Your task to perform on an android device: uninstall "PUBG MOBILE" Image 0: 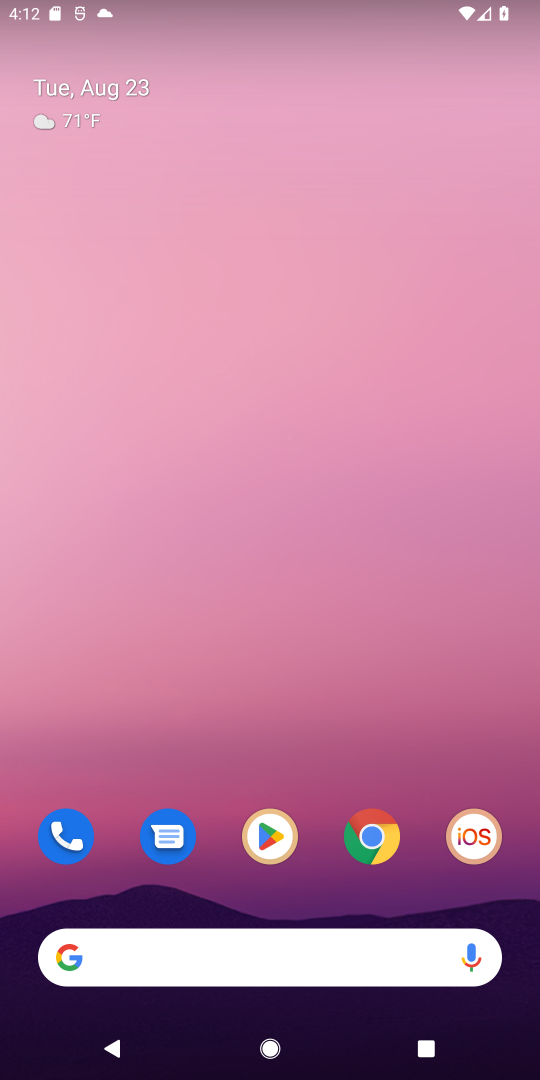
Step 0: click (274, 829)
Your task to perform on an android device: uninstall "PUBG MOBILE" Image 1: 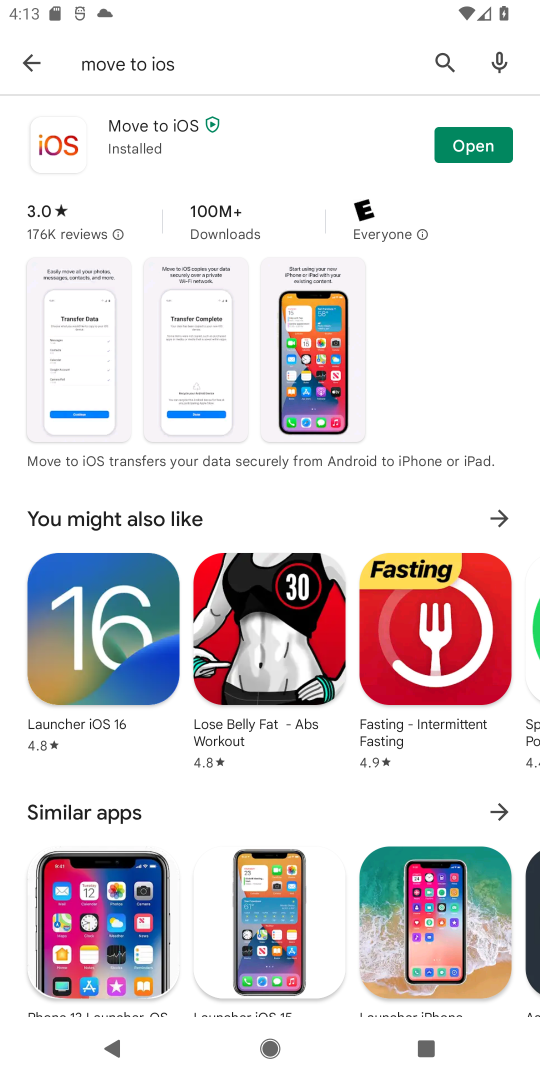
Step 1: click (443, 62)
Your task to perform on an android device: uninstall "PUBG MOBILE" Image 2: 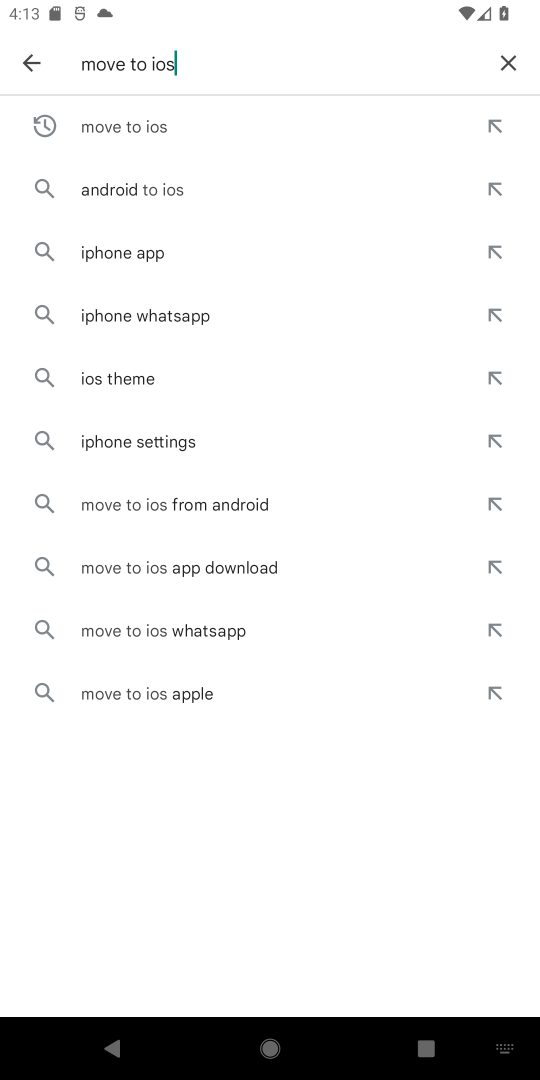
Step 2: click (508, 57)
Your task to perform on an android device: uninstall "PUBG MOBILE" Image 3: 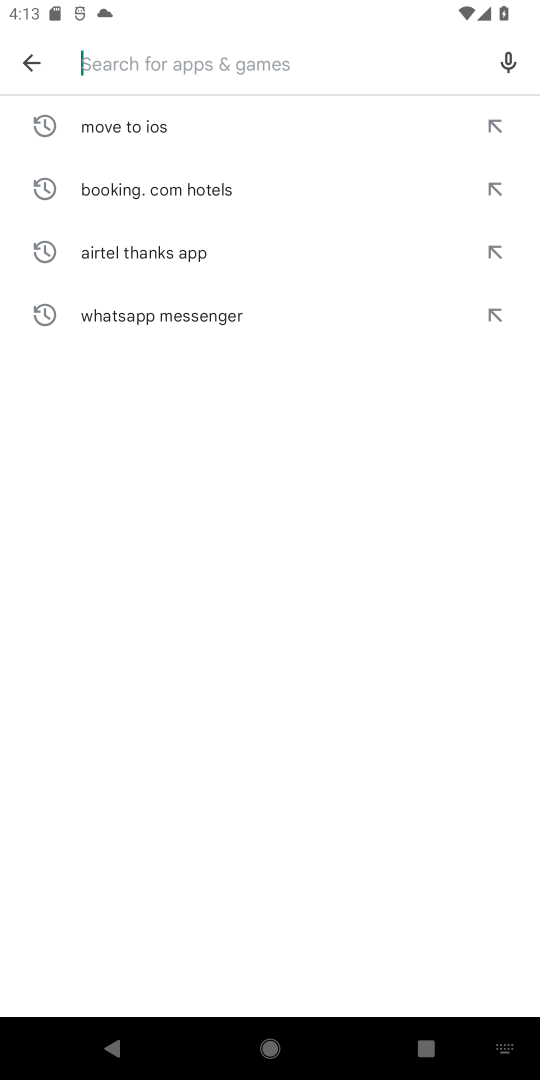
Step 3: type "PUBG MOBILE"
Your task to perform on an android device: uninstall "PUBG MOBILE" Image 4: 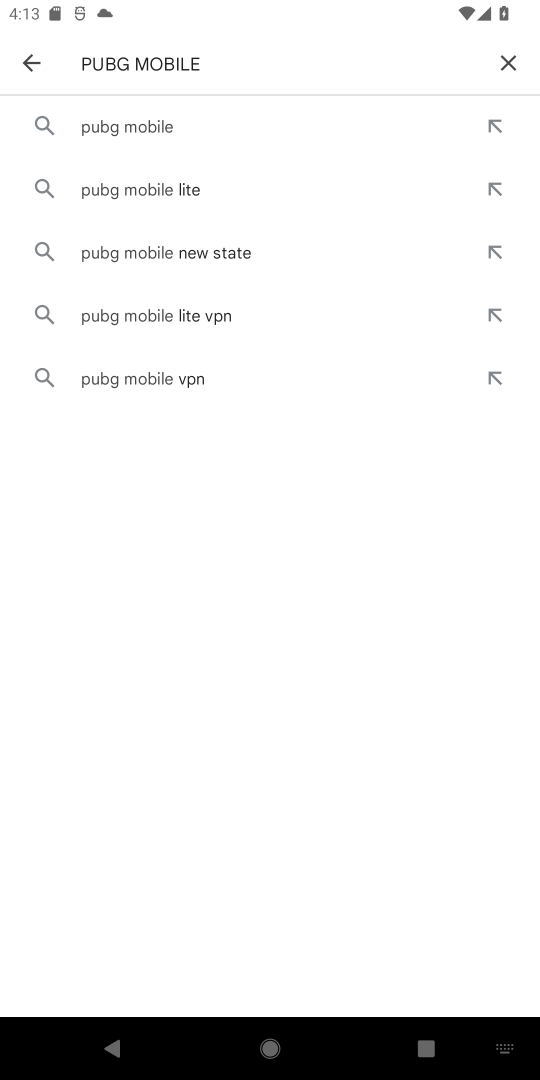
Step 4: click (104, 108)
Your task to perform on an android device: uninstall "PUBG MOBILE" Image 5: 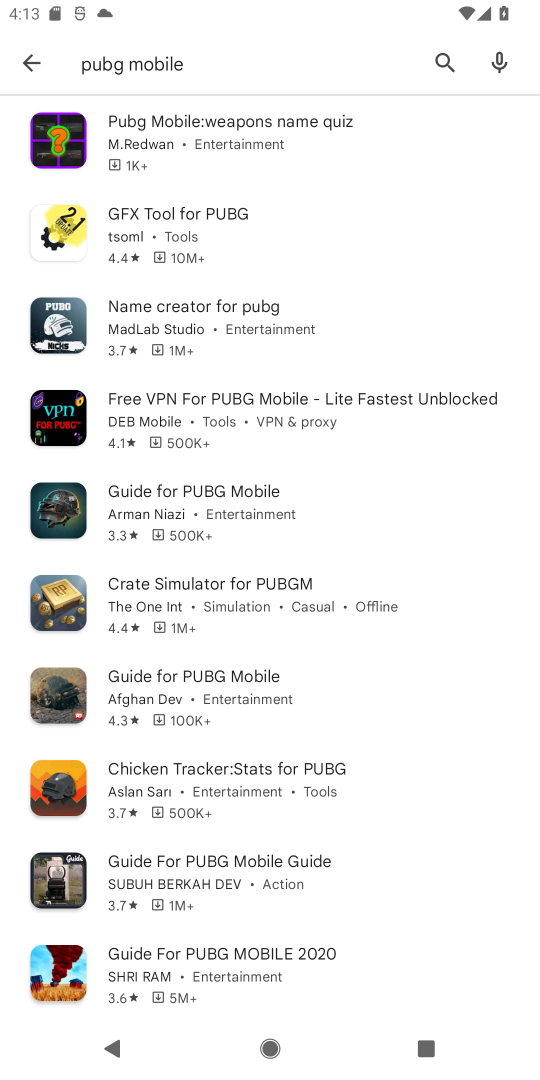
Step 5: task complete